Your task to perform on an android device: Do I have any events today? Image 0: 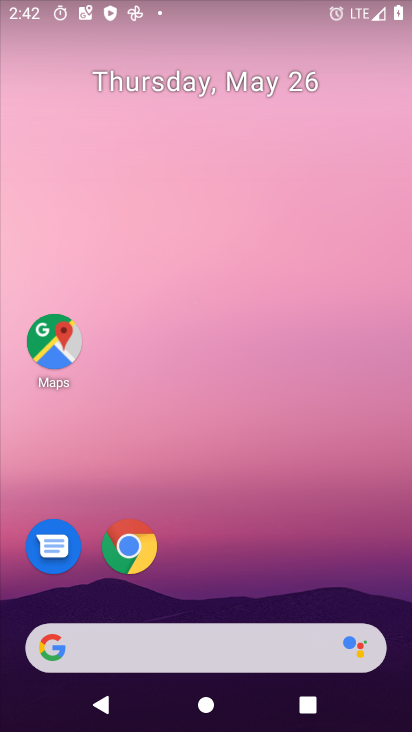
Step 0: drag from (207, 568) to (244, 150)
Your task to perform on an android device: Do I have any events today? Image 1: 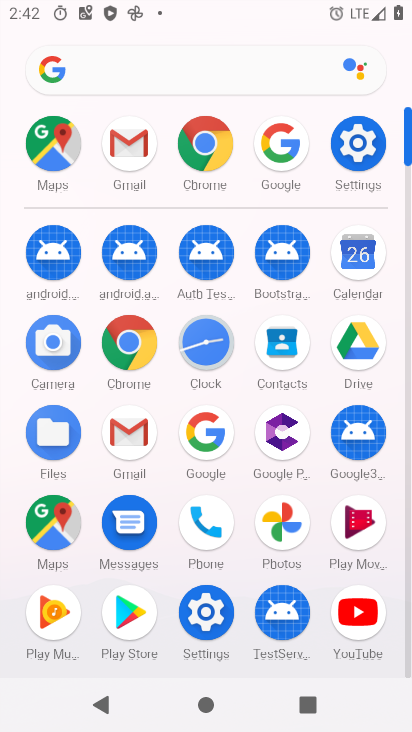
Step 1: click (358, 258)
Your task to perform on an android device: Do I have any events today? Image 2: 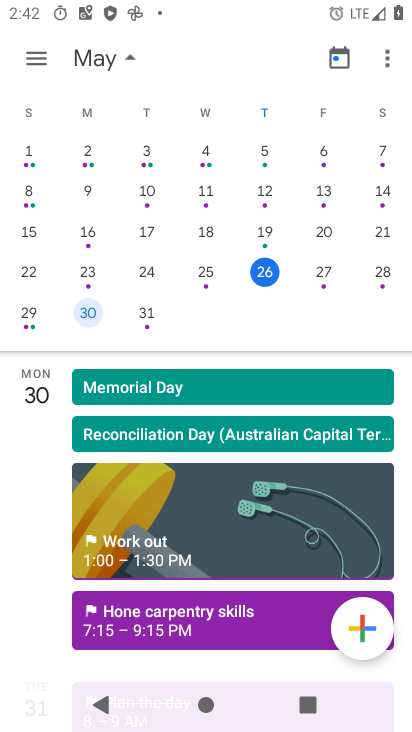
Step 2: click (267, 268)
Your task to perform on an android device: Do I have any events today? Image 3: 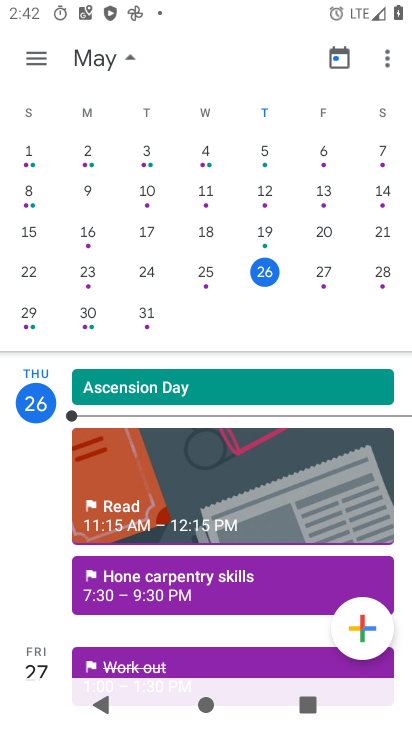
Step 3: task complete